Your task to perform on an android device: change notifications settings Image 0: 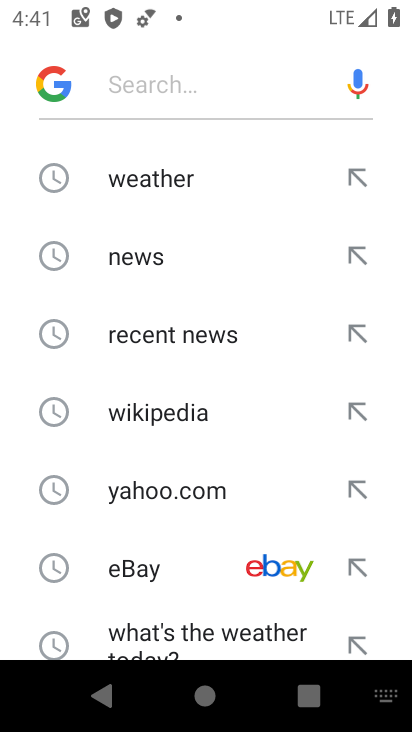
Step 0: press home button
Your task to perform on an android device: change notifications settings Image 1: 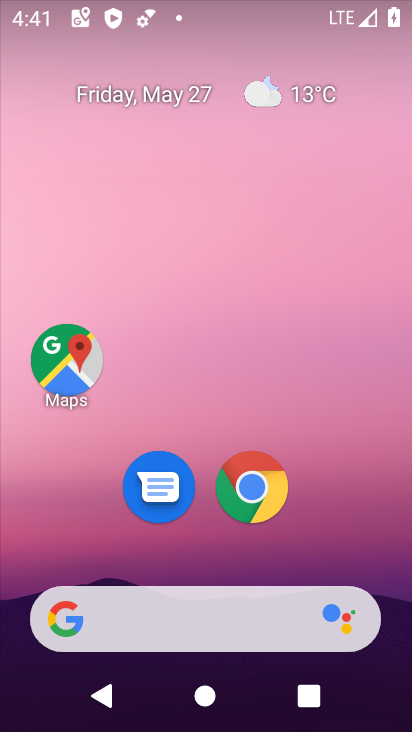
Step 1: drag from (331, 480) to (316, 40)
Your task to perform on an android device: change notifications settings Image 2: 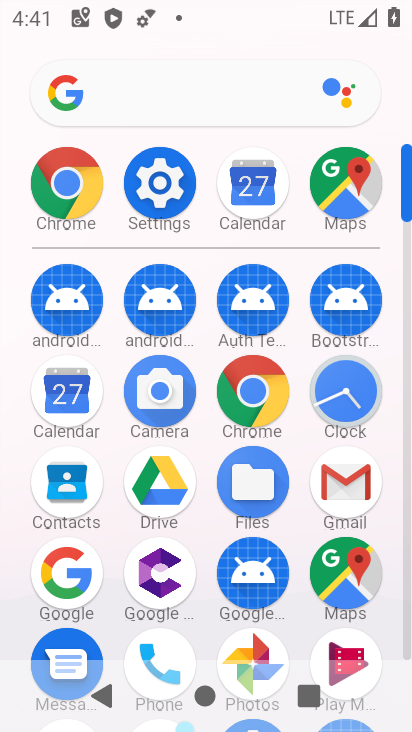
Step 2: click (162, 187)
Your task to perform on an android device: change notifications settings Image 3: 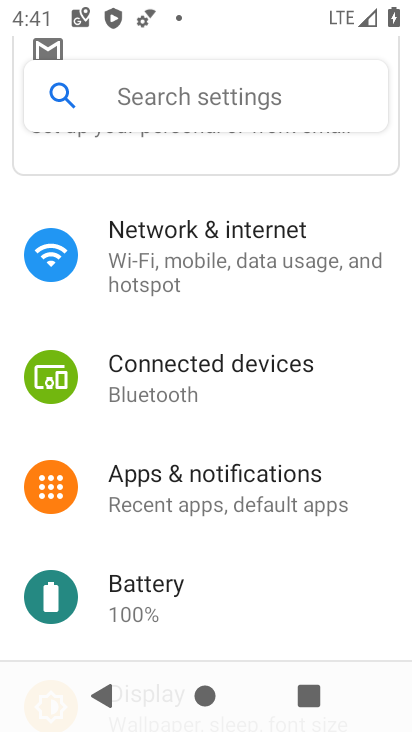
Step 3: click (226, 489)
Your task to perform on an android device: change notifications settings Image 4: 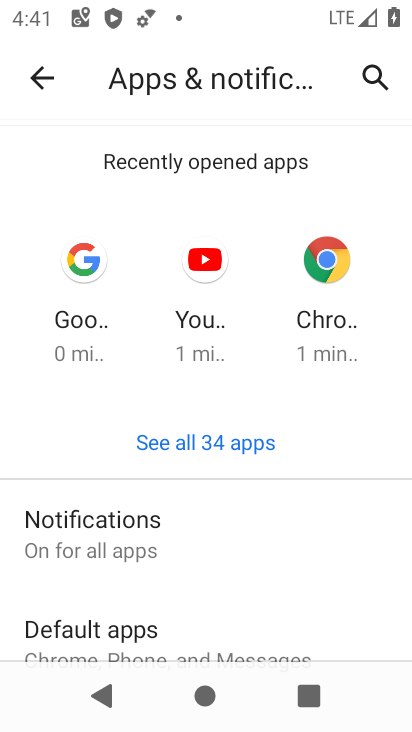
Step 4: click (144, 521)
Your task to perform on an android device: change notifications settings Image 5: 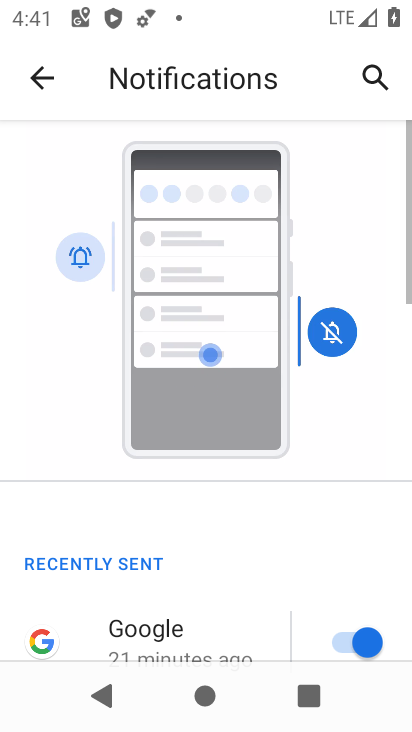
Step 5: drag from (224, 543) to (149, 31)
Your task to perform on an android device: change notifications settings Image 6: 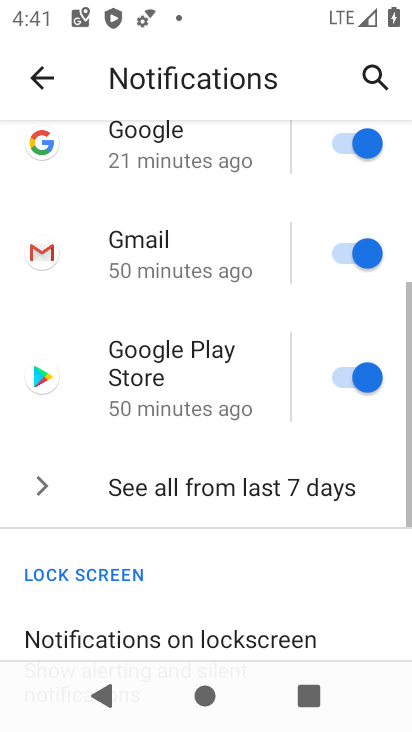
Step 6: drag from (207, 468) to (231, 56)
Your task to perform on an android device: change notifications settings Image 7: 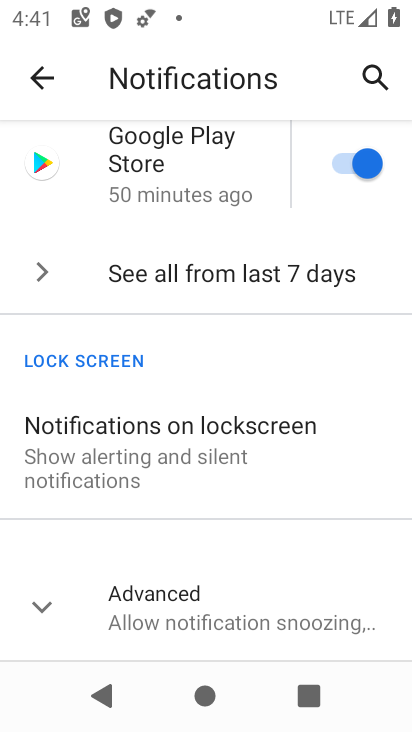
Step 7: click (174, 577)
Your task to perform on an android device: change notifications settings Image 8: 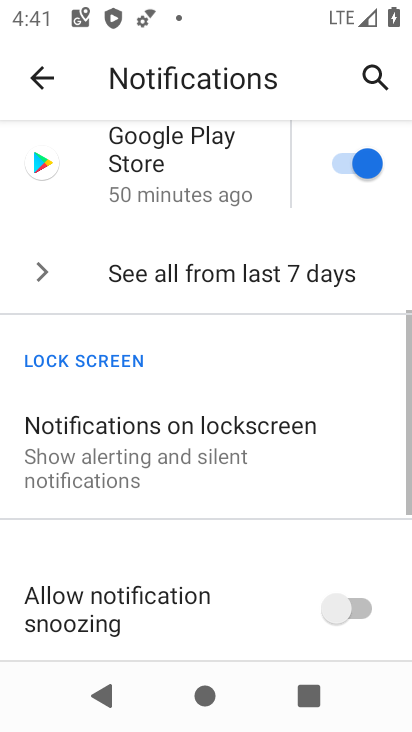
Step 8: drag from (243, 578) to (300, 175)
Your task to perform on an android device: change notifications settings Image 9: 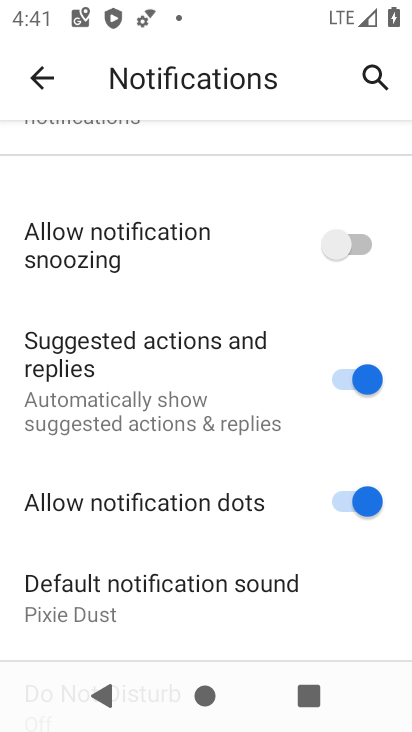
Step 9: click (334, 250)
Your task to perform on an android device: change notifications settings Image 10: 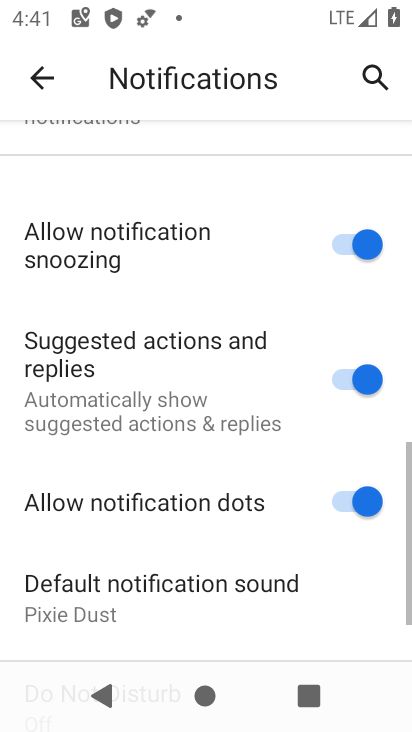
Step 10: task complete